Your task to perform on an android device: change timer sound Image 0: 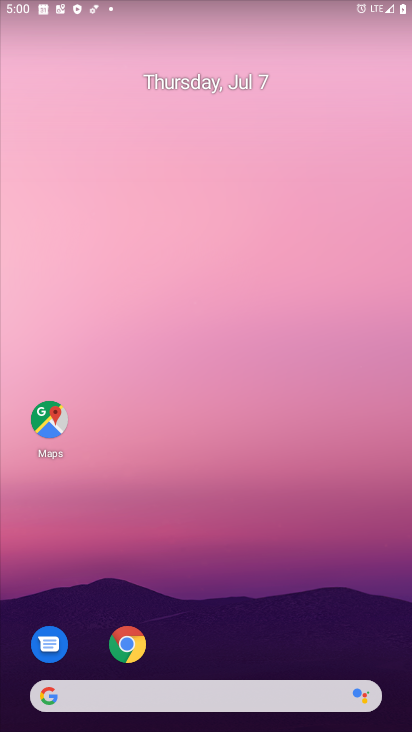
Step 0: drag from (230, 651) to (298, 168)
Your task to perform on an android device: change timer sound Image 1: 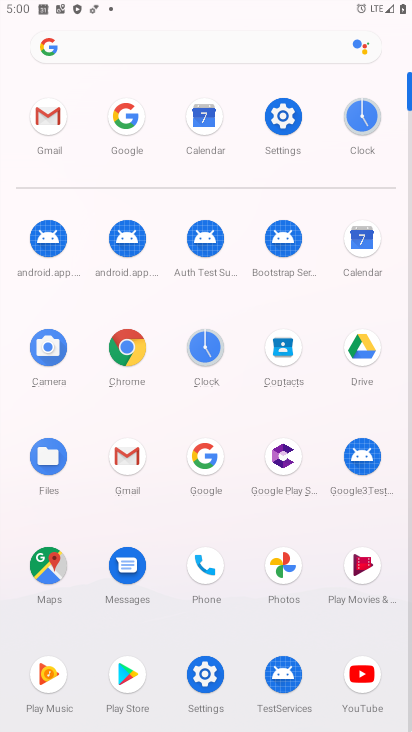
Step 1: click (204, 349)
Your task to perform on an android device: change timer sound Image 2: 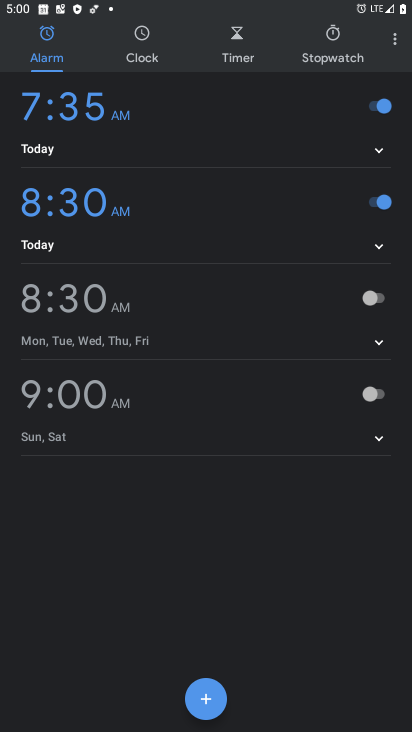
Step 2: click (396, 40)
Your task to perform on an android device: change timer sound Image 3: 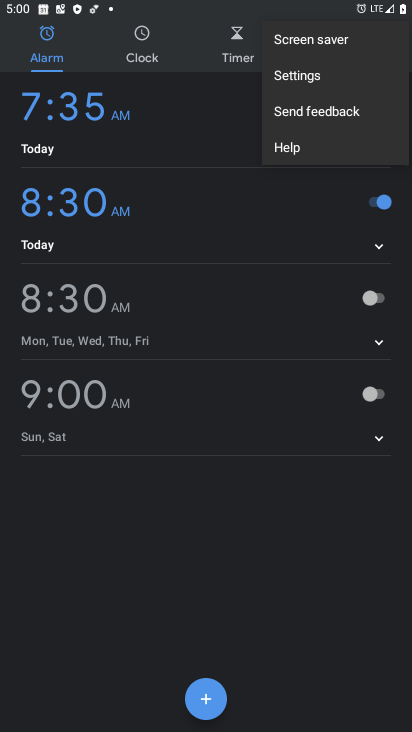
Step 3: click (314, 79)
Your task to perform on an android device: change timer sound Image 4: 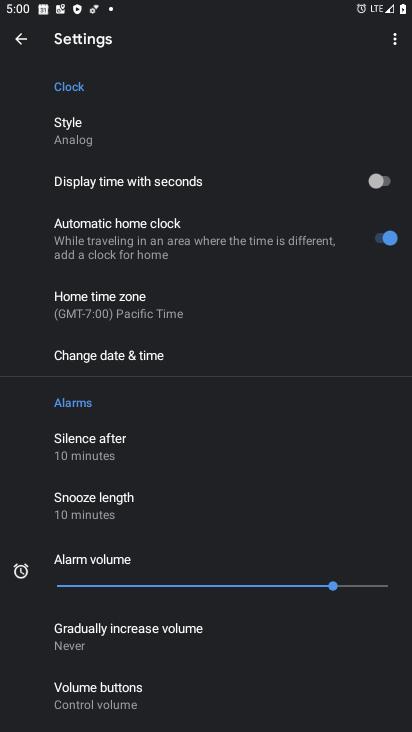
Step 4: drag from (177, 482) to (216, 381)
Your task to perform on an android device: change timer sound Image 5: 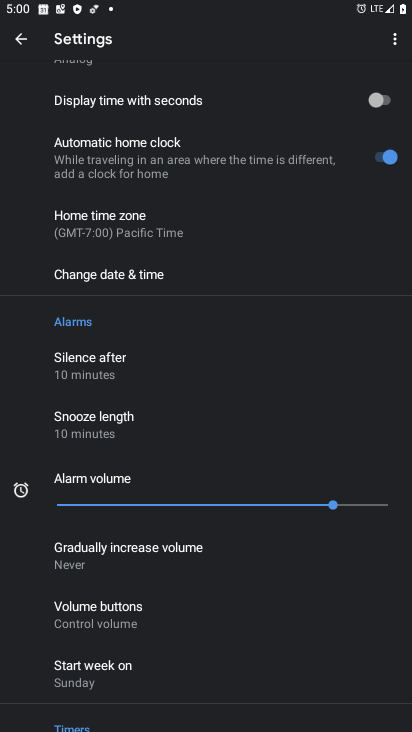
Step 5: drag from (153, 564) to (241, 448)
Your task to perform on an android device: change timer sound Image 6: 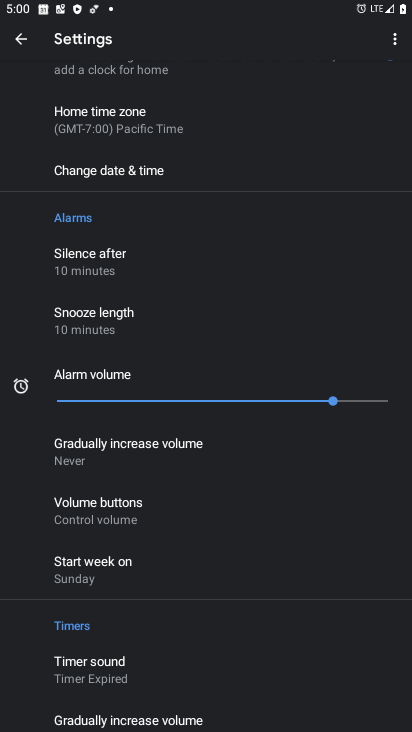
Step 6: drag from (170, 549) to (234, 453)
Your task to perform on an android device: change timer sound Image 7: 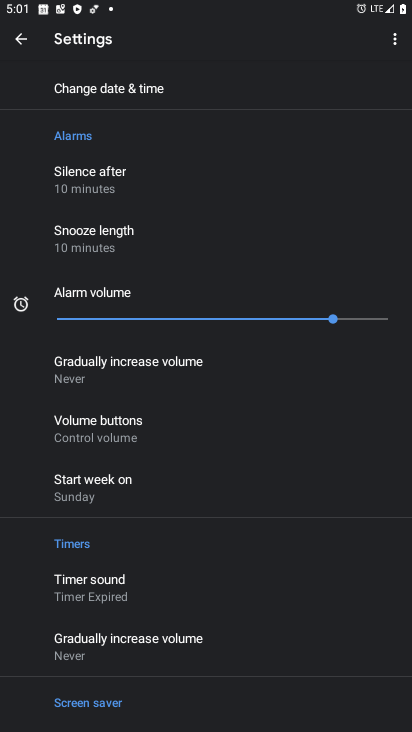
Step 7: click (118, 596)
Your task to perform on an android device: change timer sound Image 8: 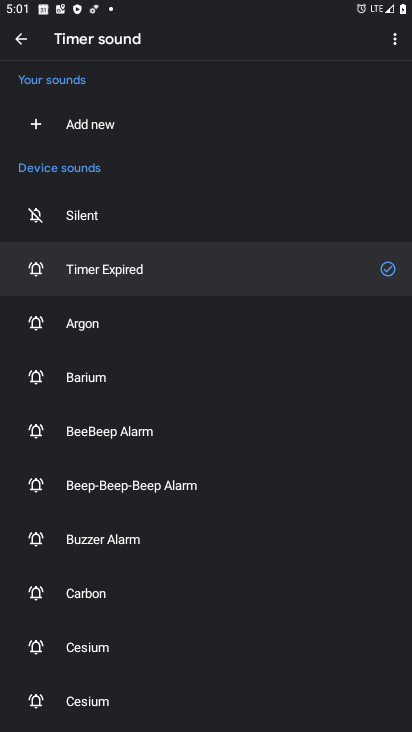
Step 8: click (99, 659)
Your task to perform on an android device: change timer sound Image 9: 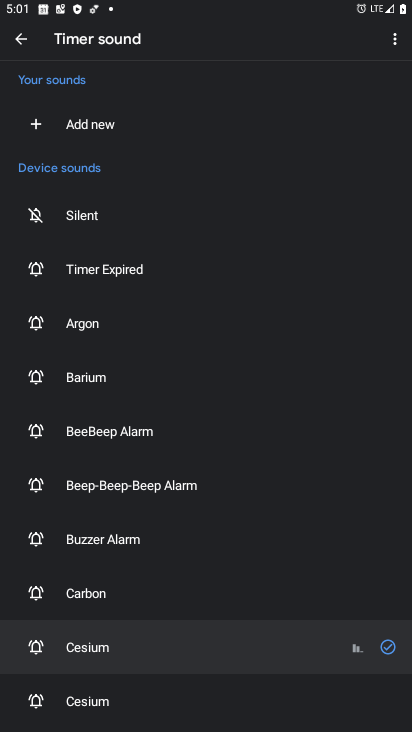
Step 9: task complete